Your task to perform on an android device: check out phone information Image 0: 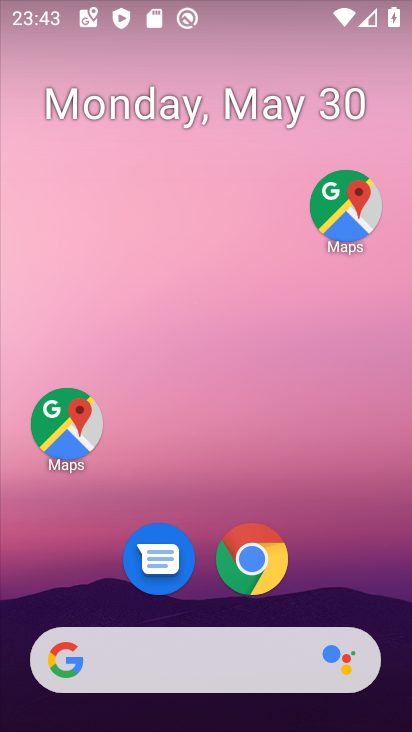
Step 0: drag from (333, 545) to (269, 62)
Your task to perform on an android device: check out phone information Image 1: 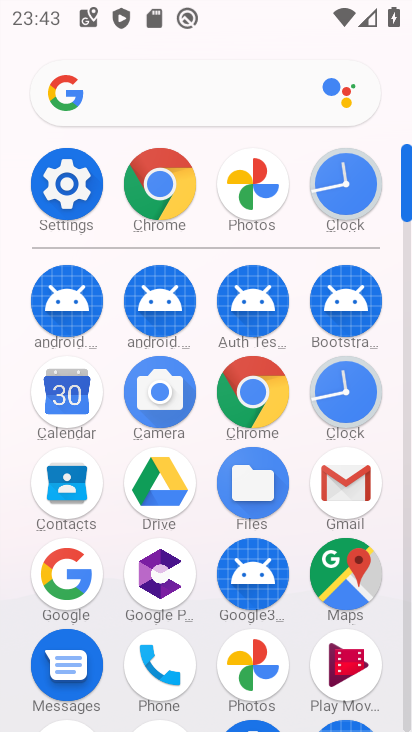
Step 1: click (162, 668)
Your task to perform on an android device: check out phone information Image 2: 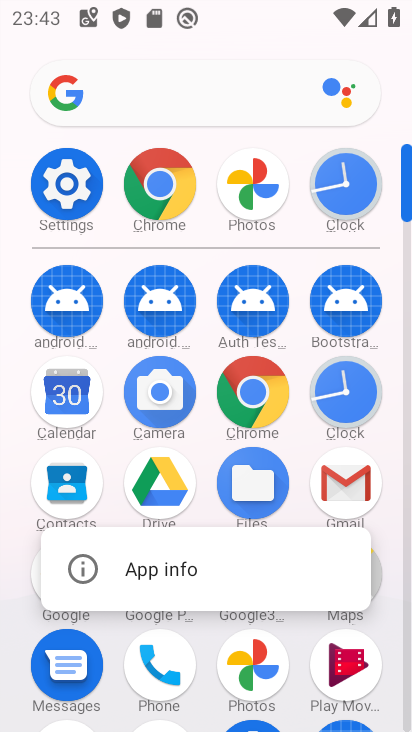
Step 2: click (158, 572)
Your task to perform on an android device: check out phone information Image 3: 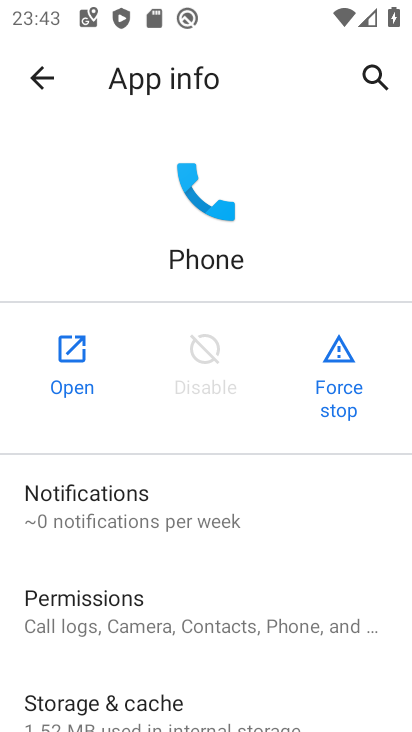
Step 3: task complete